Your task to perform on an android device: Search for Mexican restaurants on Maps Image 0: 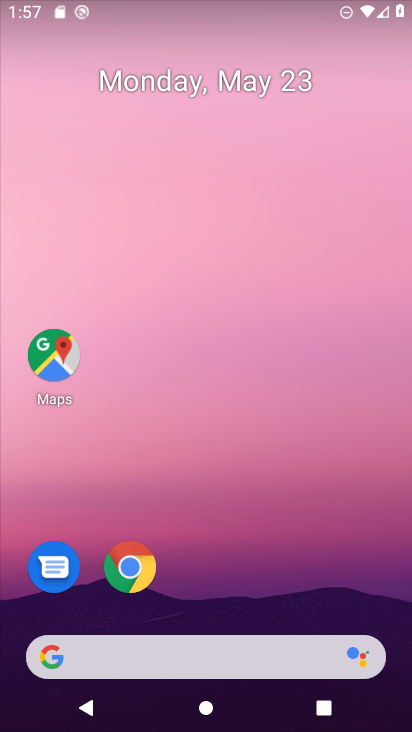
Step 0: drag from (335, 722) to (286, 726)
Your task to perform on an android device: Search for Mexican restaurants on Maps Image 1: 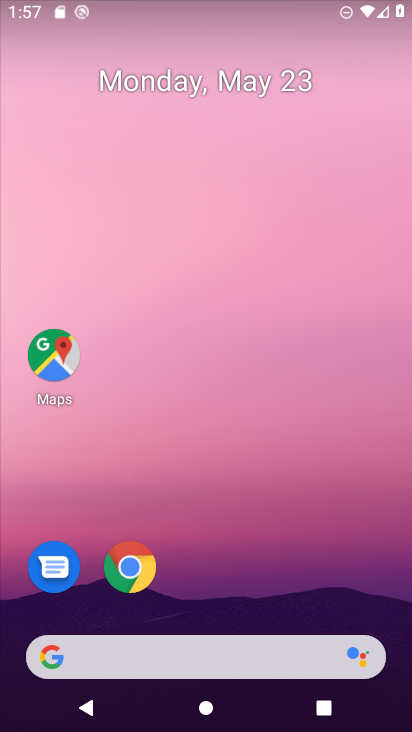
Step 1: drag from (266, 605) to (302, 245)
Your task to perform on an android device: Search for Mexican restaurants on Maps Image 2: 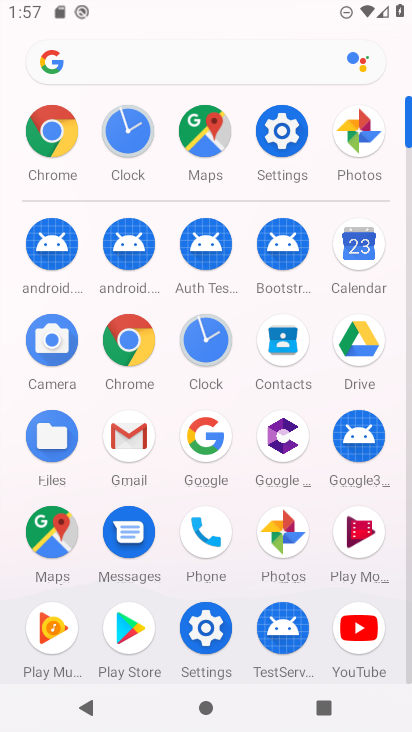
Step 2: click (50, 526)
Your task to perform on an android device: Search for Mexican restaurants on Maps Image 3: 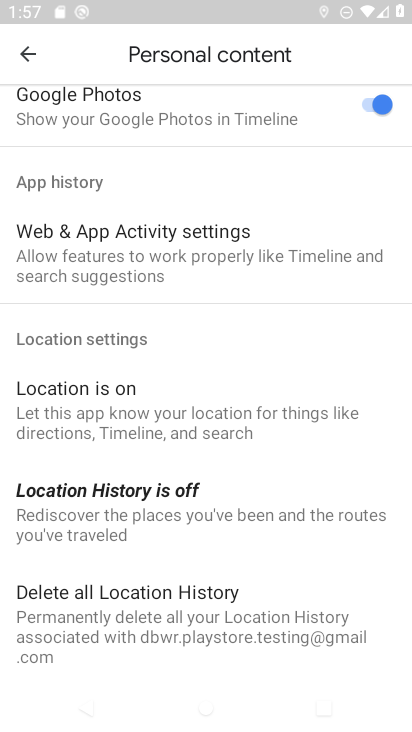
Step 3: click (28, 50)
Your task to perform on an android device: Search for Mexican restaurants on Maps Image 4: 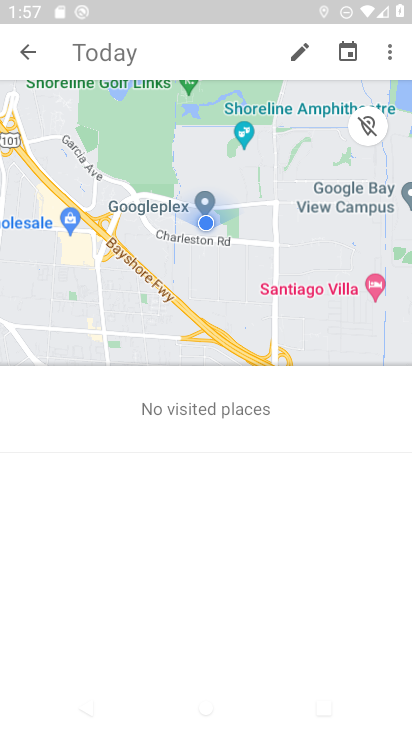
Step 4: click (28, 50)
Your task to perform on an android device: Search for Mexican restaurants on Maps Image 5: 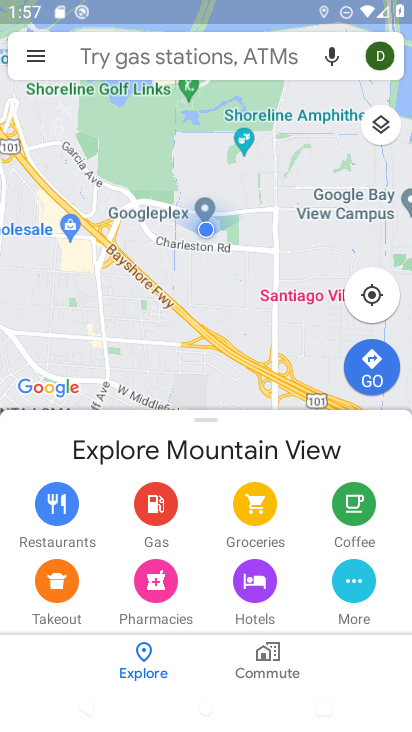
Step 5: click (206, 50)
Your task to perform on an android device: Search for Mexican restaurants on Maps Image 6: 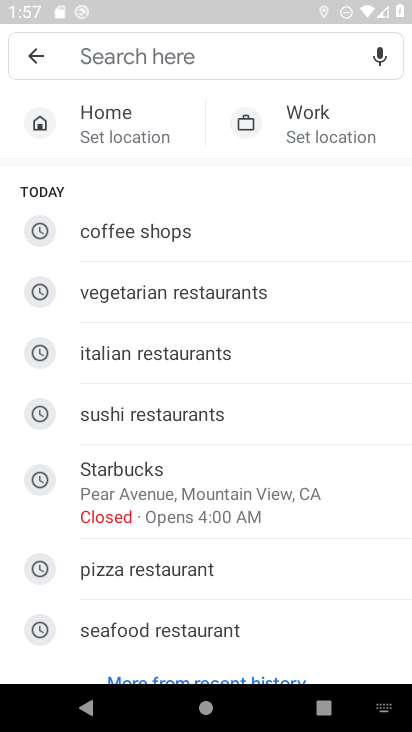
Step 6: type " Mexican restaurants "
Your task to perform on an android device: Search for Mexican restaurants on Maps Image 7: 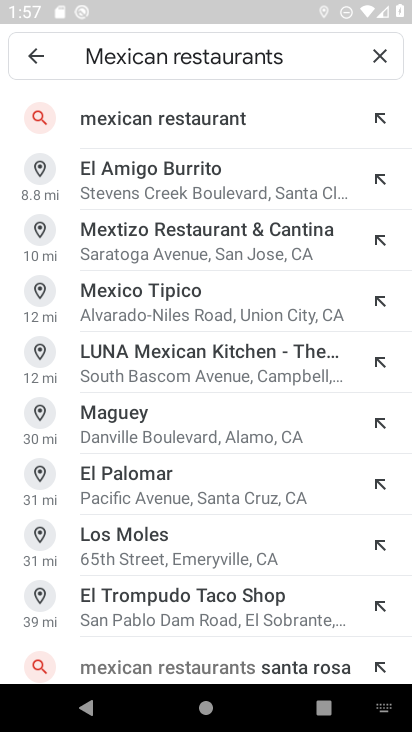
Step 7: click (225, 122)
Your task to perform on an android device: Search for Mexican restaurants on Maps Image 8: 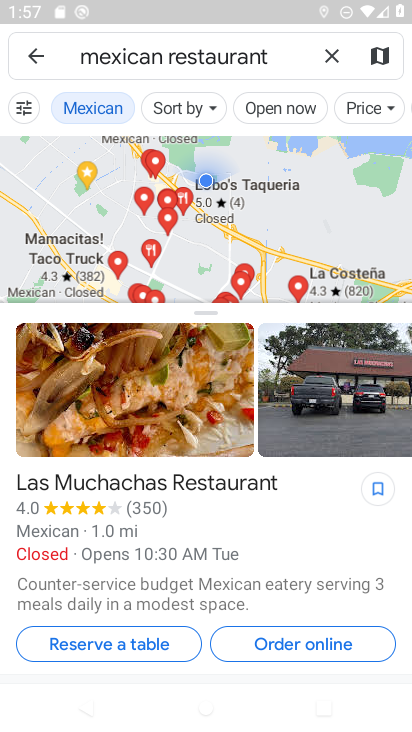
Step 8: task complete